Your task to perform on an android device: Open Google Maps Image 0: 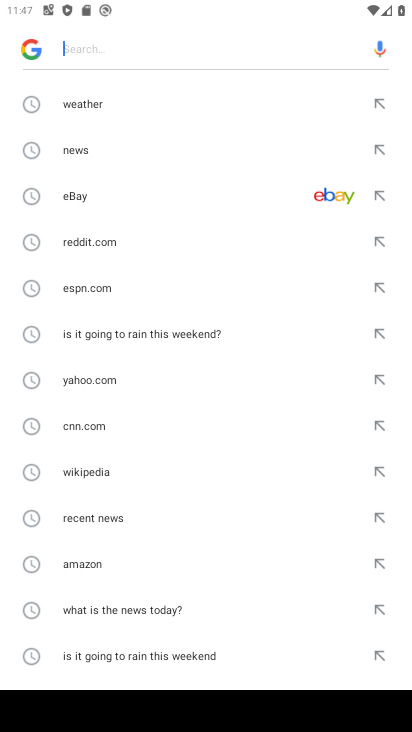
Step 0: press home button
Your task to perform on an android device: Open Google Maps Image 1: 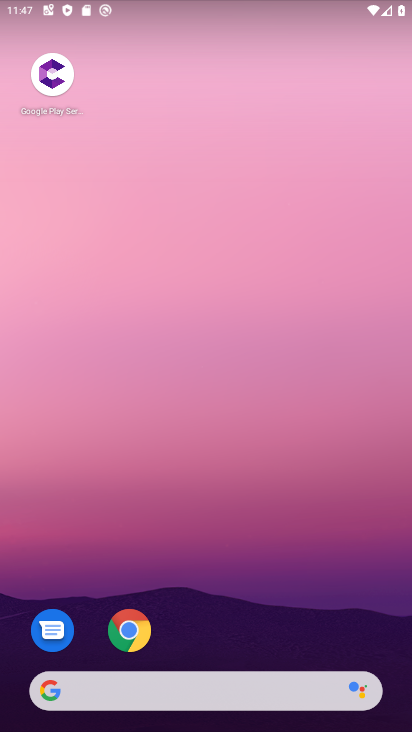
Step 1: drag from (217, 629) to (241, 144)
Your task to perform on an android device: Open Google Maps Image 2: 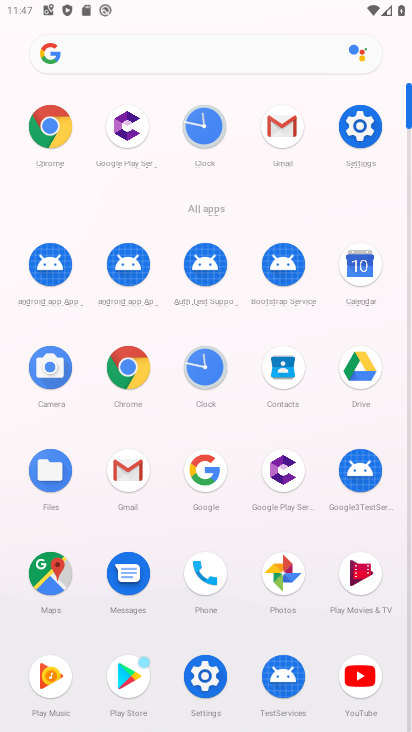
Step 2: click (61, 557)
Your task to perform on an android device: Open Google Maps Image 3: 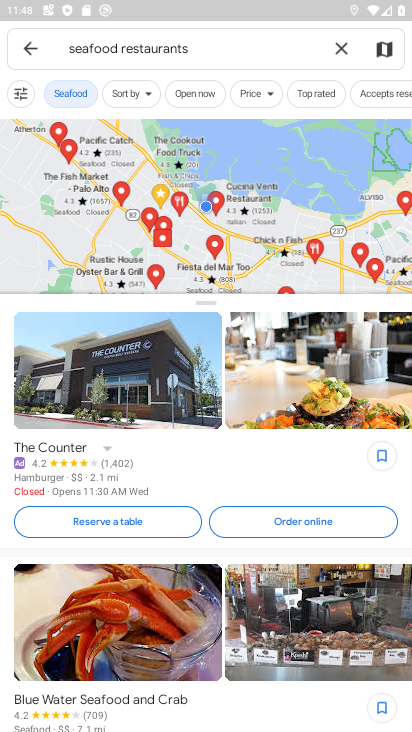
Step 3: task complete